Your task to perform on an android device: turn off data saver in the chrome app Image 0: 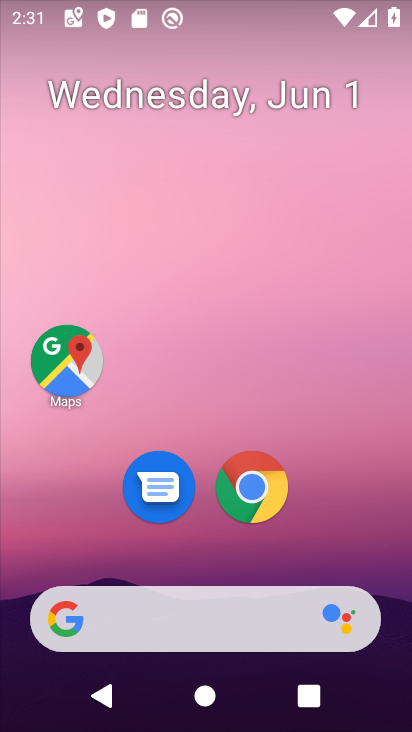
Step 0: drag from (379, 551) to (358, 246)
Your task to perform on an android device: turn off data saver in the chrome app Image 1: 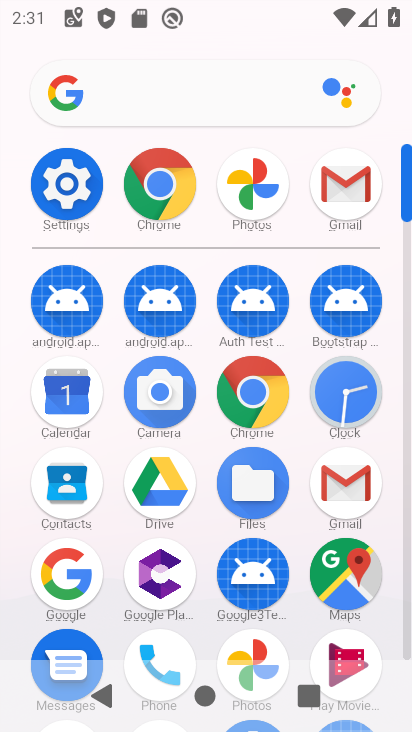
Step 1: click (266, 406)
Your task to perform on an android device: turn off data saver in the chrome app Image 2: 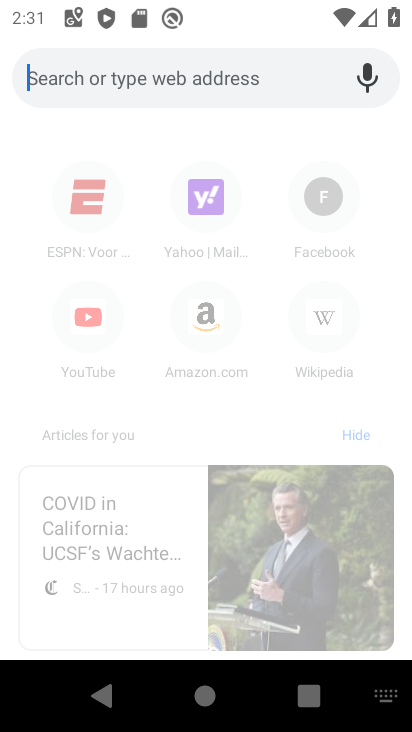
Step 2: press home button
Your task to perform on an android device: turn off data saver in the chrome app Image 3: 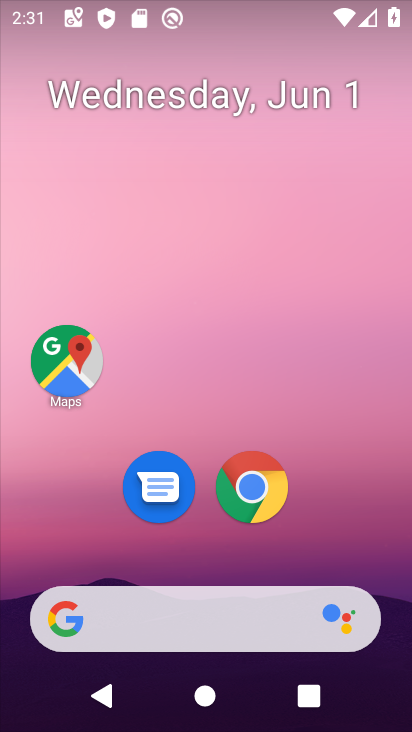
Step 3: drag from (354, 535) to (373, 141)
Your task to perform on an android device: turn off data saver in the chrome app Image 4: 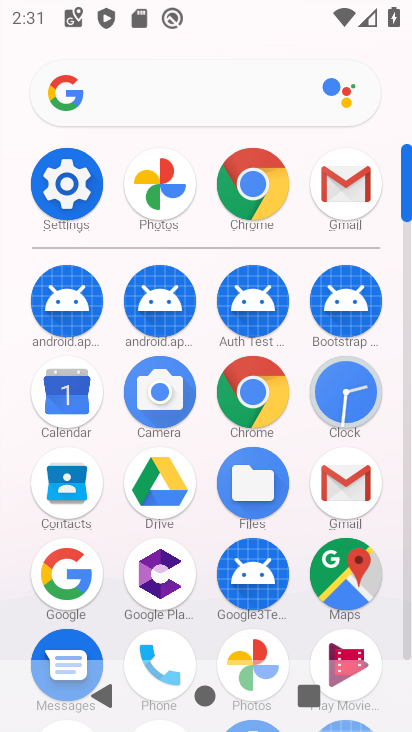
Step 4: click (269, 392)
Your task to perform on an android device: turn off data saver in the chrome app Image 5: 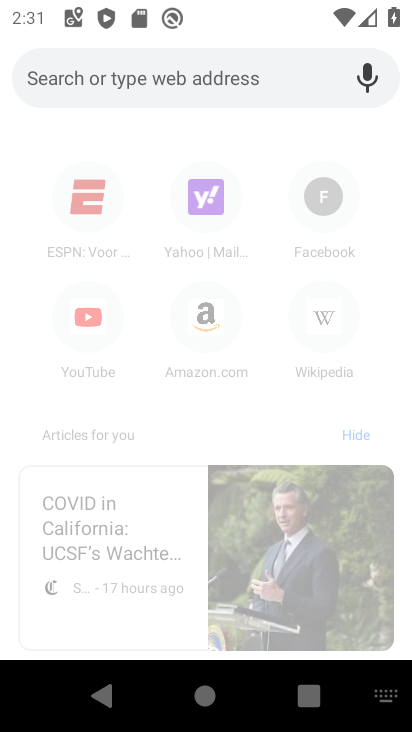
Step 5: press back button
Your task to perform on an android device: turn off data saver in the chrome app Image 6: 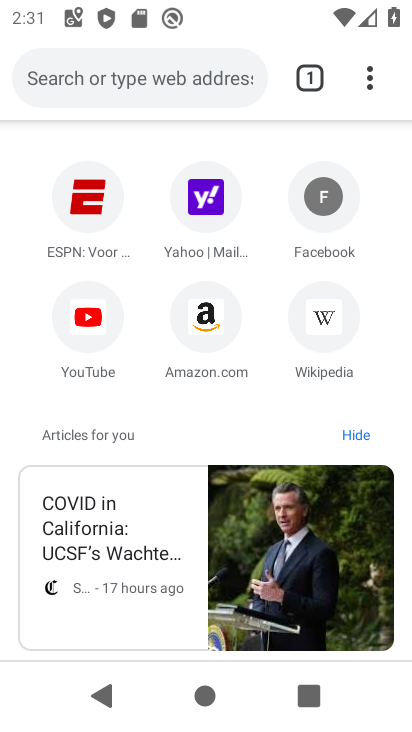
Step 6: click (372, 80)
Your task to perform on an android device: turn off data saver in the chrome app Image 7: 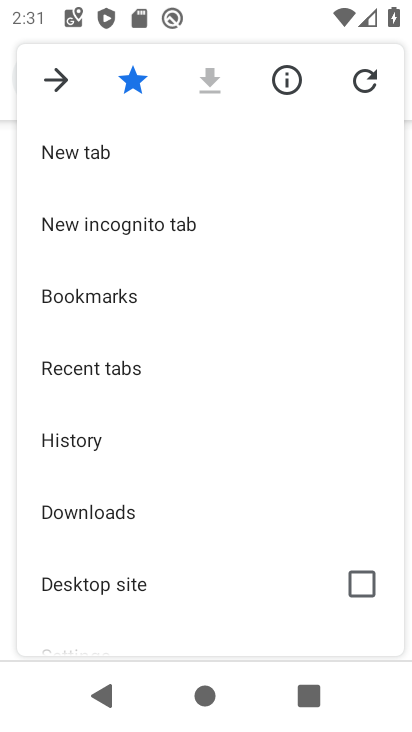
Step 7: drag from (311, 324) to (308, 211)
Your task to perform on an android device: turn off data saver in the chrome app Image 8: 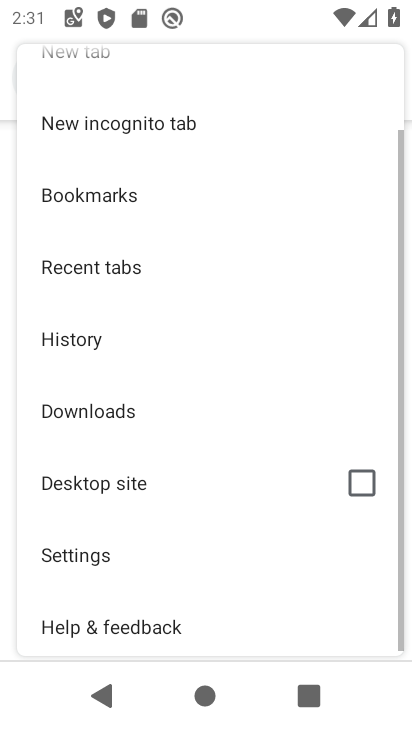
Step 8: drag from (261, 404) to (264, 293)
Your task to perform on an android device: turn off data saver in the chrome app Image 9: 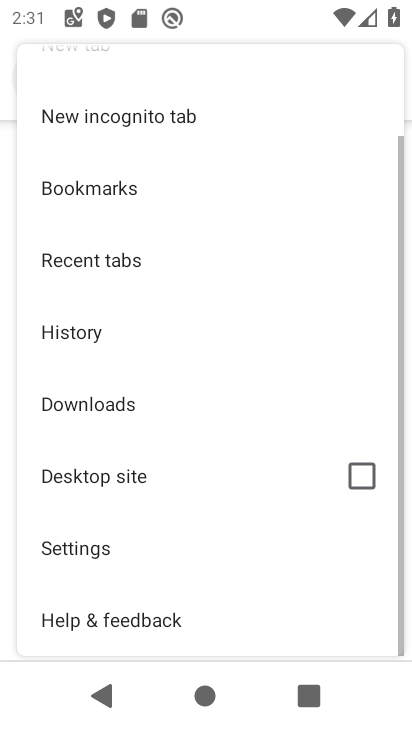
Step 9: click (115, 559)
Your task to perform on an android device: turn off data saver in the chrome app Image 10: 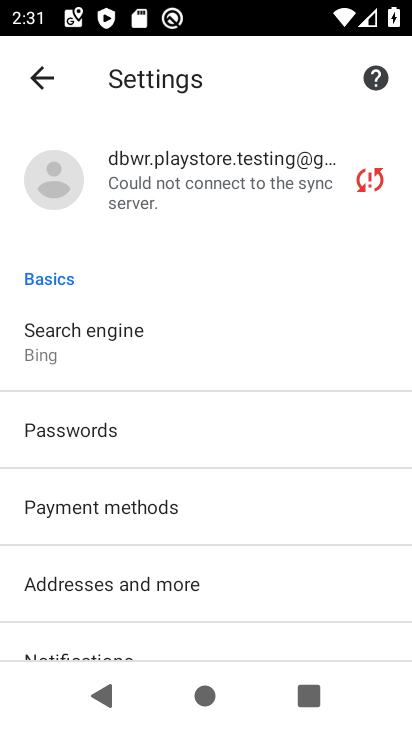
Step 10: drag from (250, 526) to (265, 443)
Your task to perform on an android device: turn off data saver in the chrome app Image 11: 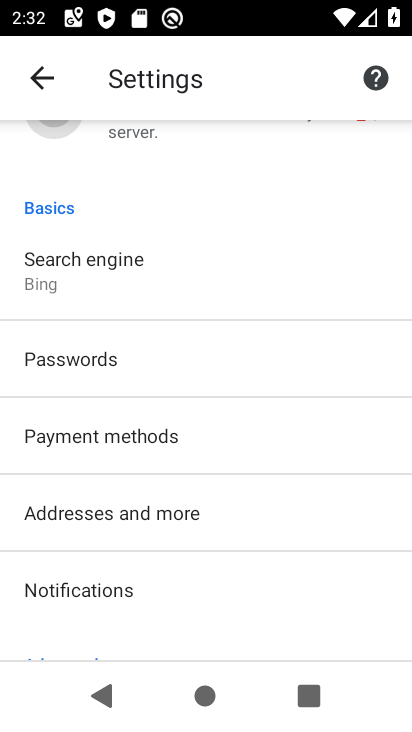
Step 11: drag from (301, 489) to (320, 350)
Your task to perform on an android device: turn off data saver in the chrome app Image 12: 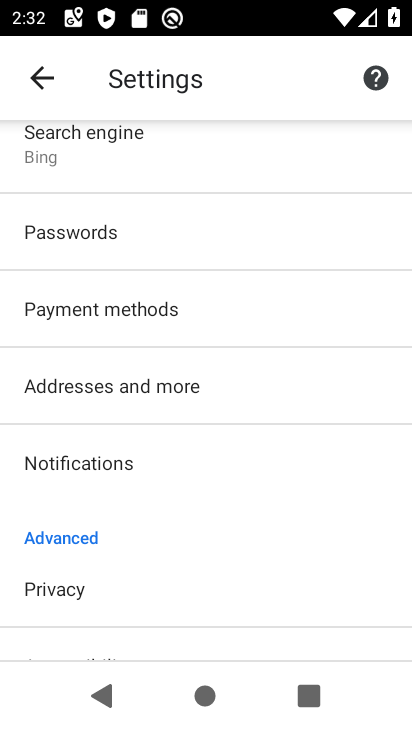
Step 12: drag from (319, 467) to (332, 306)
Your task to perform on an android device: turn off data saver in the chrome app Image 13: 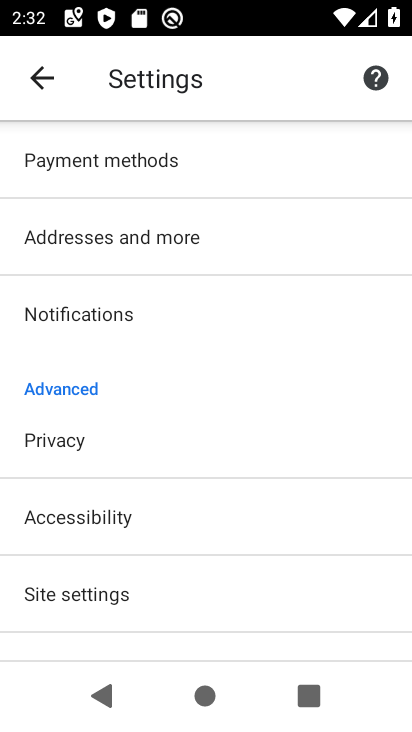
Step 13: click (353, 358)
Your task to perform on an android device: turn off data saver in the chrome app Image 14: 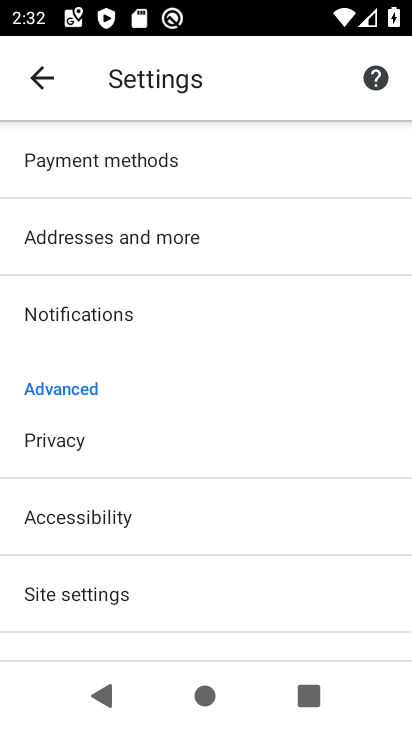
Step 14: drag from (338, 548) to (352, 392)
Your task to perform on an android device: turn off data saver in the chrome app Image 15: 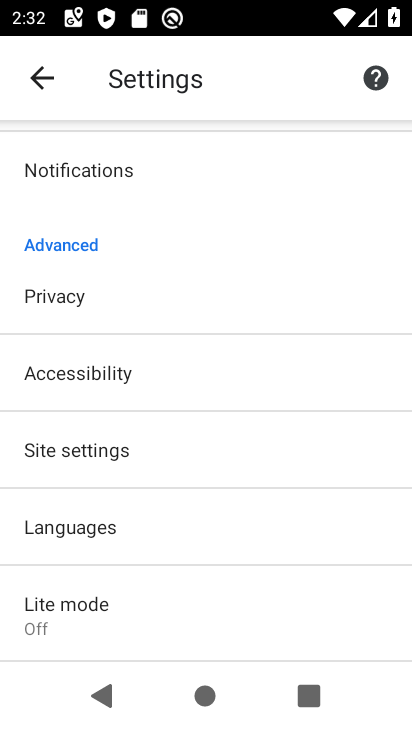
Step 15: click (287, 598)
Your task to perform on an android device: turn off data saver in the chrome app Image 16: 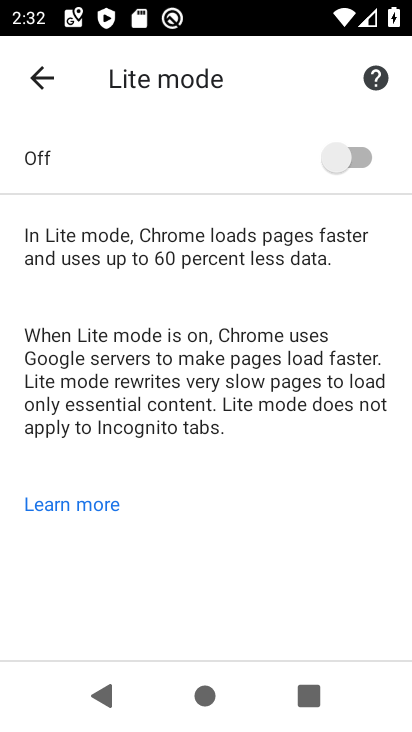
Step 16: task complete